Your task to perform on an android device: How old is the earth? Image 0: 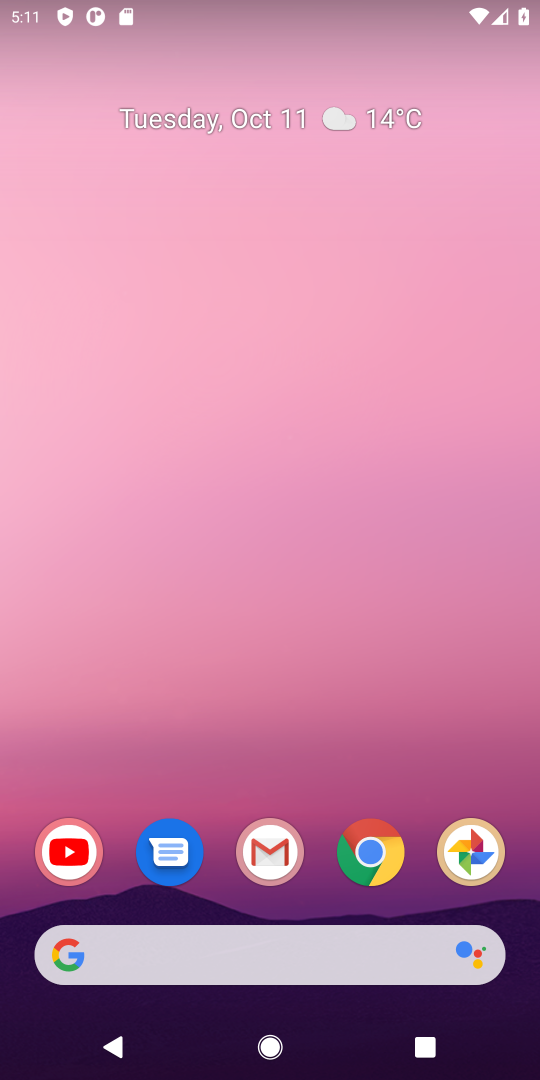
Step 0: click (395, 857)
Your task to perform on an android device: How old is the earth? Image 1: 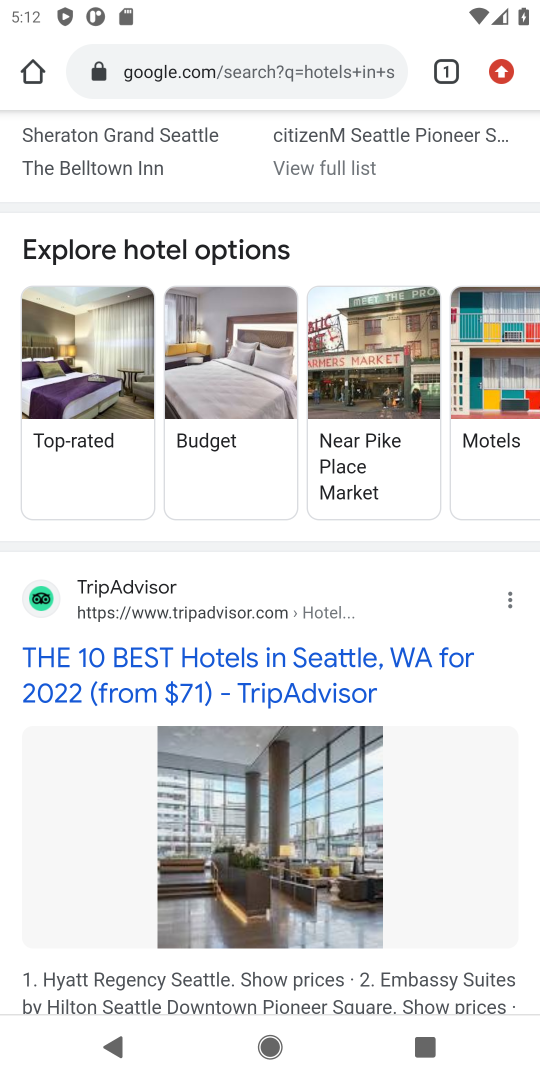
Step 1: click (321, 67)
Your task to perform on an android device: How old is the earth? Image 2: 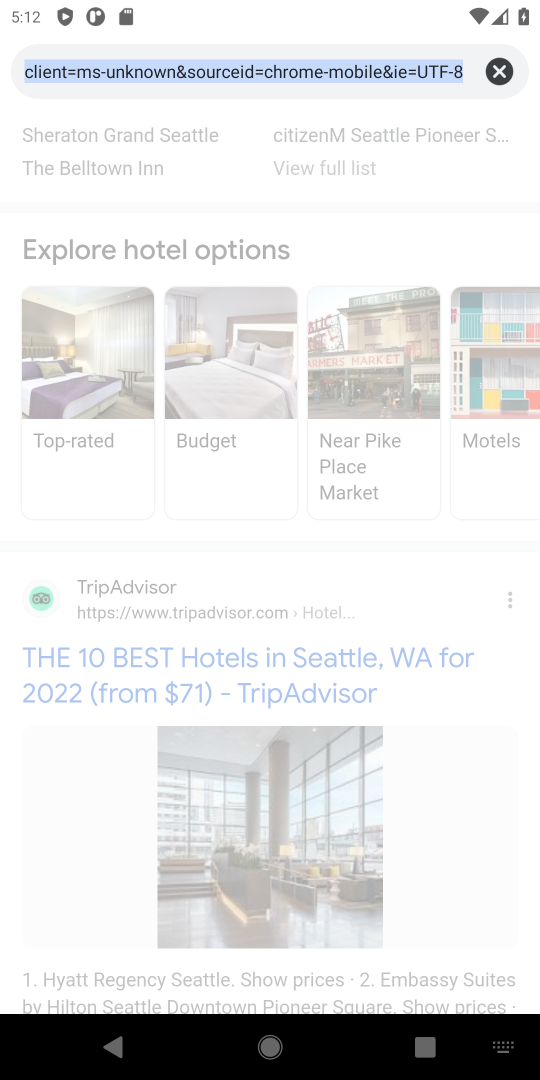
Step 2: type "How old is the earth?"
Your task to perform on an android device: How old is the earth? Image 3: 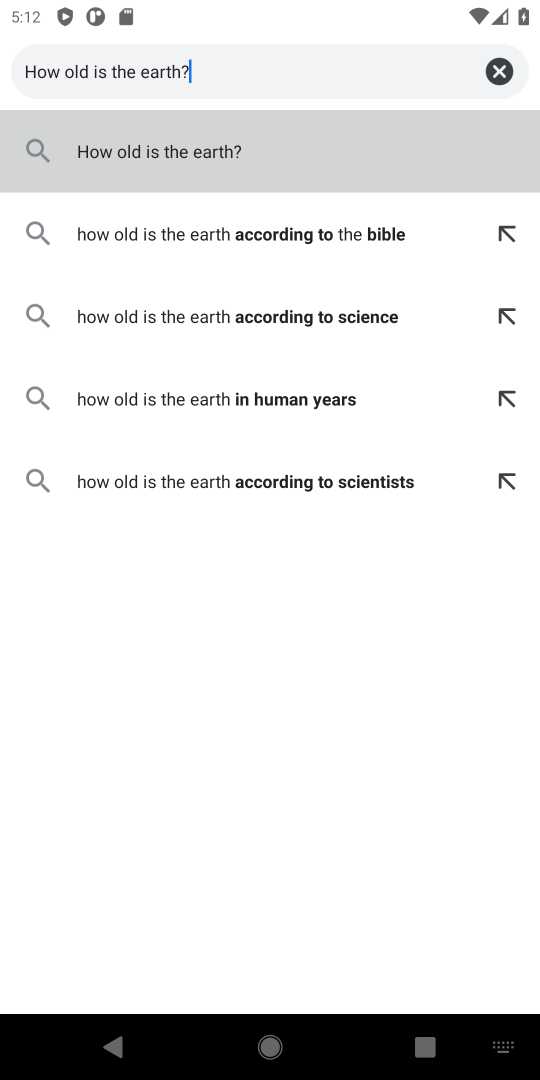
Step 3: click (369, 159)
Your task to perform on an android device: How old is the earth? Image 4: 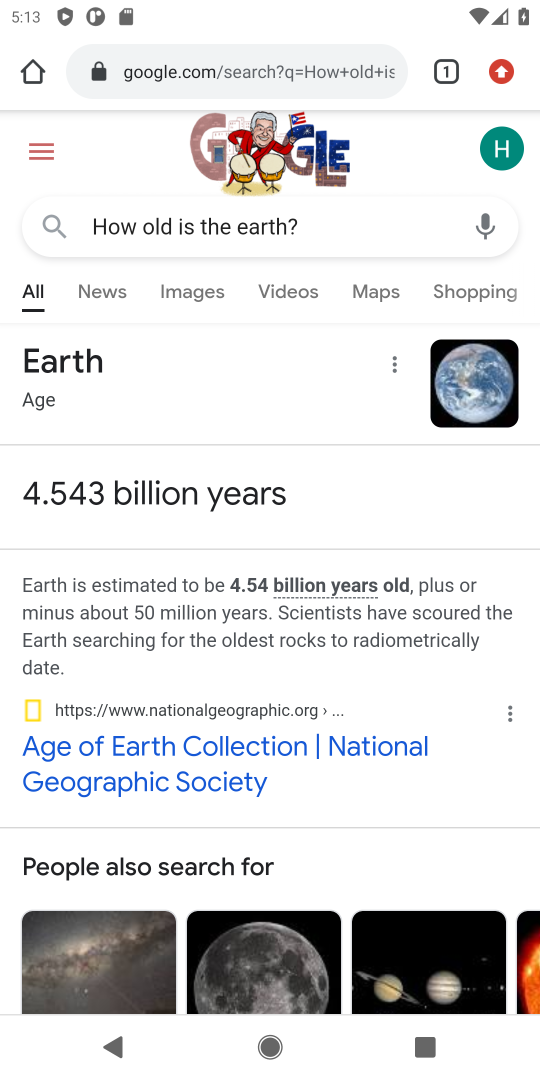
Step 4: task complete